Your task to perform on an android device: Go to ESPN.com Image 0: 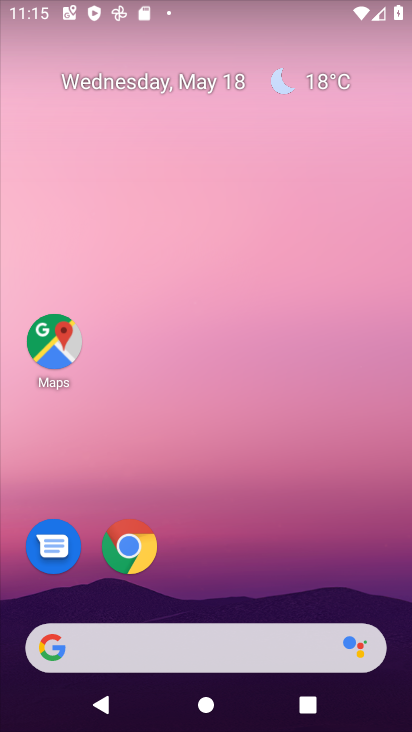
Step 0: click (124, 548)
Your task to perform on an android device: Go to ESPN.com Image 1: 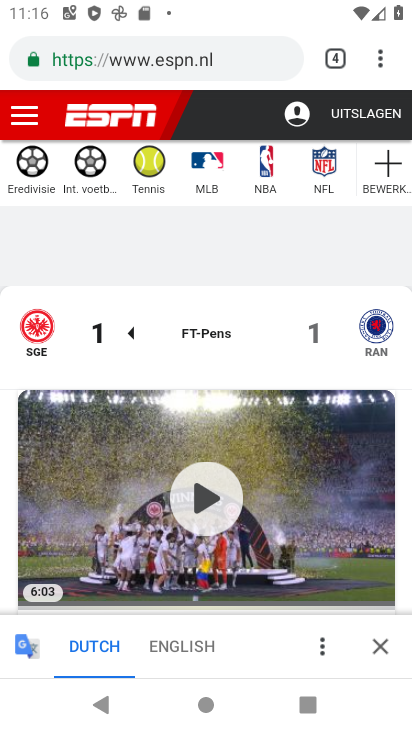
Step 1: task complete